Your task to perform on an android device: check storage Image 0: 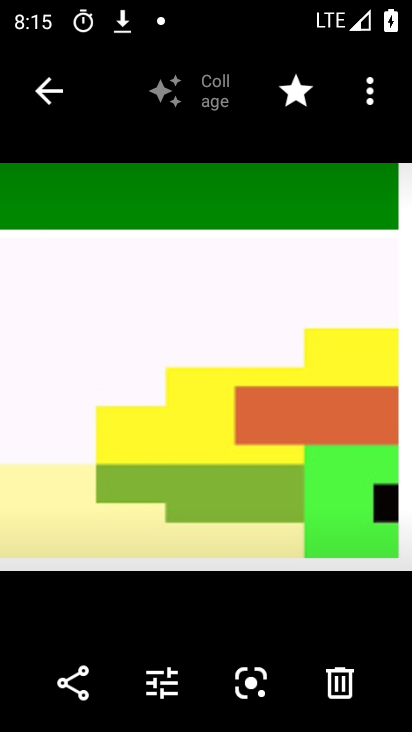
Step 0: press home button
Your task to perform on an android device: check storage Image 1: 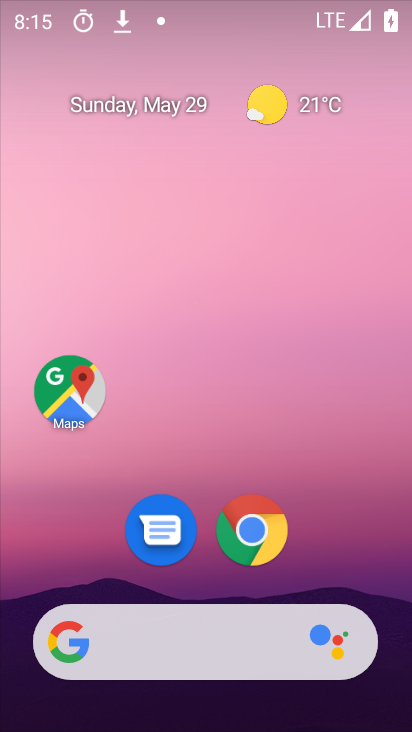
Step 1: drag from (300, 687) to (246, 199)
Your task to perform on an android device: check storage Image 2: 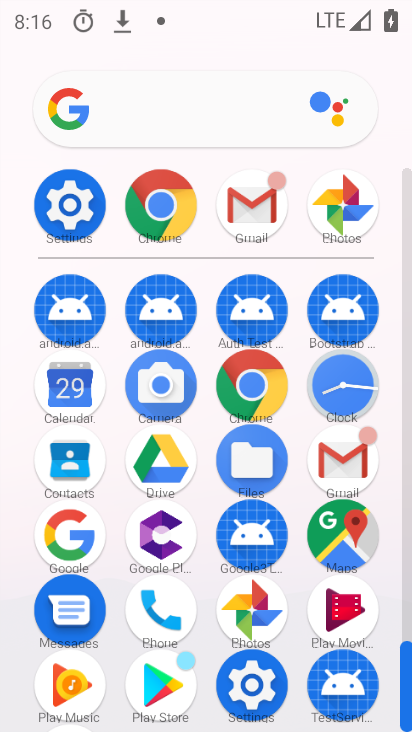
Step 2: click (73, 201)
Your task to perform on an android device: check storage Image 3: 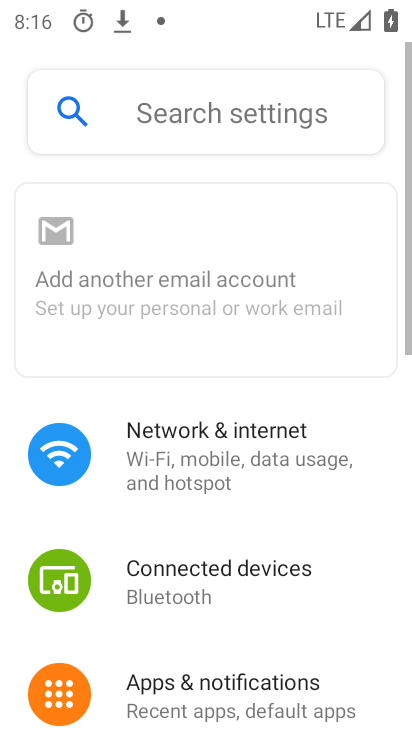
Step 3: click (172, 110)
Your task to perform on an android device: check storage Image 4: 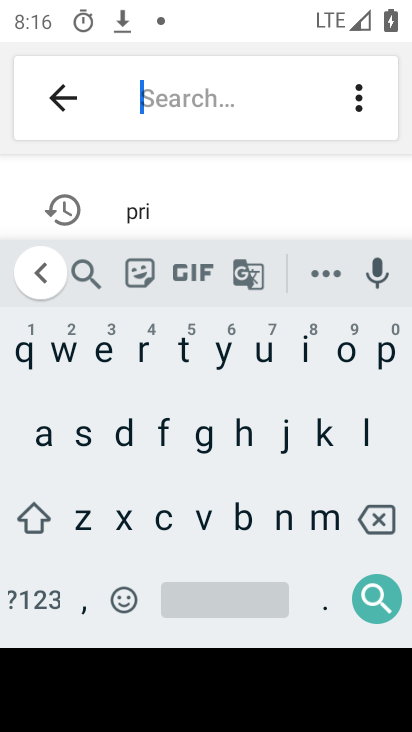
Step 4: click (81, 440)
Your task to perform on an android device: check storage Image 5: 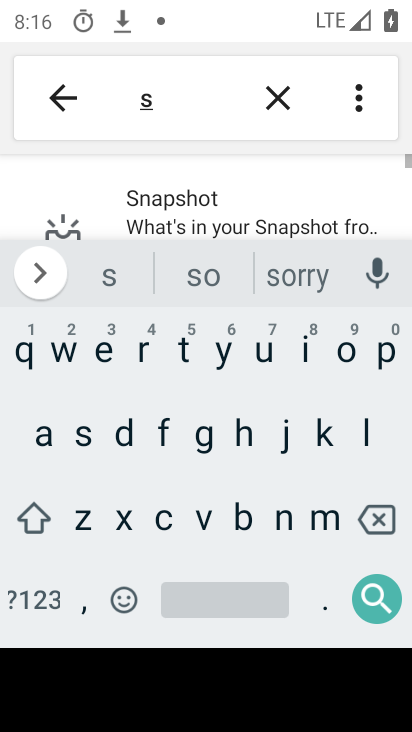
Step 5: click (184, 353)
Your task to perform on an android device: check storage Image 6: 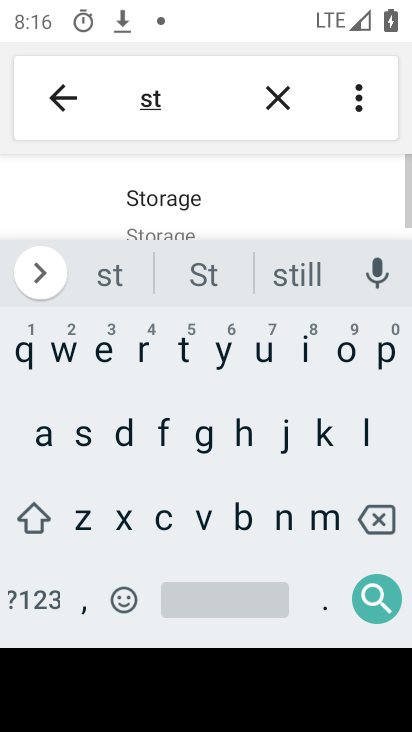
Step 6: click (176, 211)
Your task to perform on an android device: check storage Image 7: 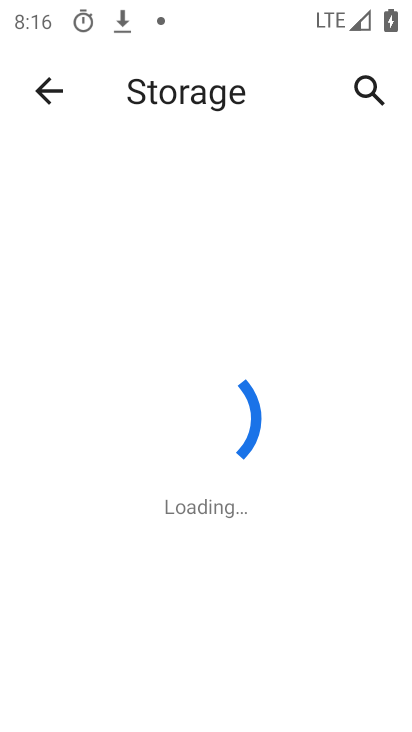
Step 7: task complete